Your task to perform on an android device: toggle wifi Image 0: 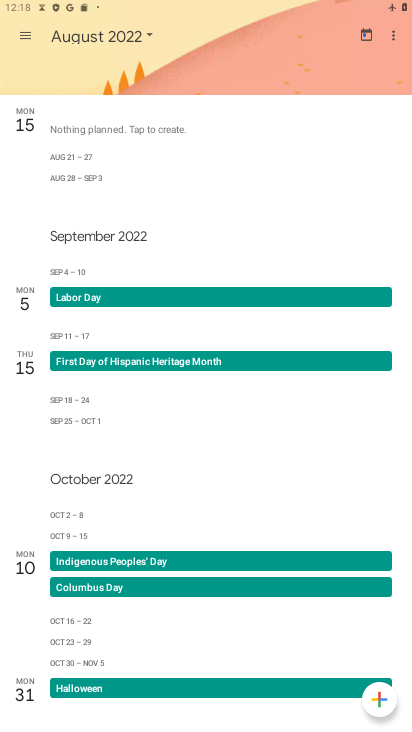
Step 0: press home button
Your task to perform on an android device: toggle wifi Image 1: 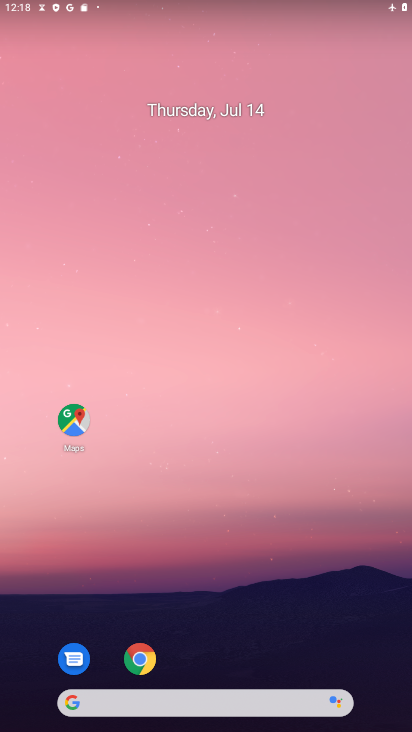
Step 1: drag from (41, 696) to (267, 39)
Your task to perform on an android device: toggle wifi Image 2: 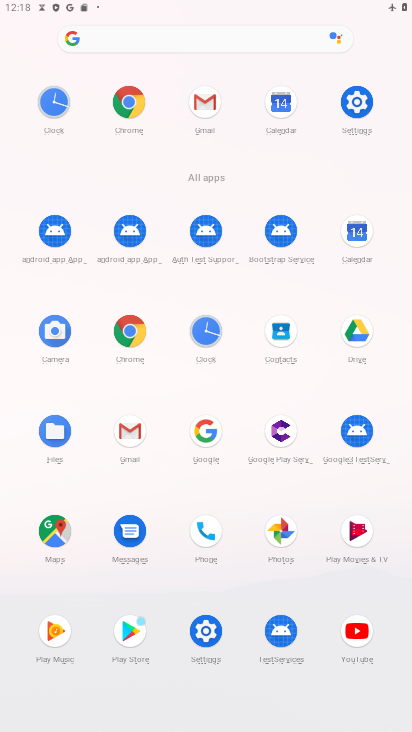
Step 2: click (199, 621)
Your task to perform on an android device: toggle wifi Image 3: 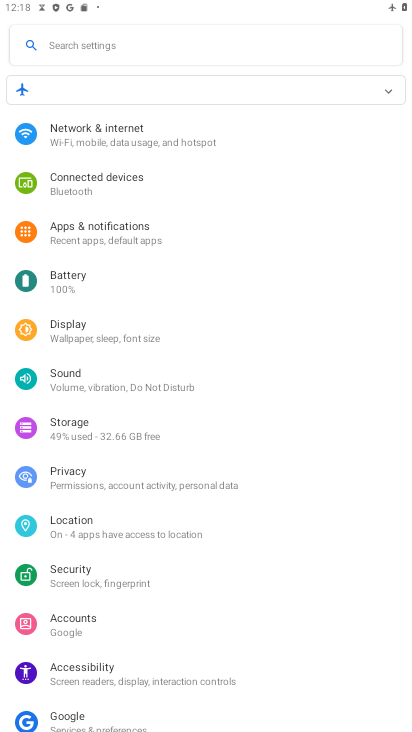
Step 3: click (161, 137)
Your task to perform on an android device: toggle wifi Image 4: 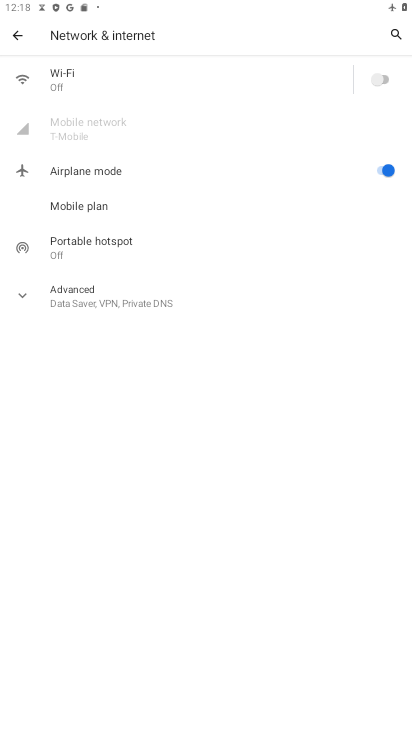
Step 4: click (374, 81)
Your task to perform on an android device: toggle wifi Image 5: 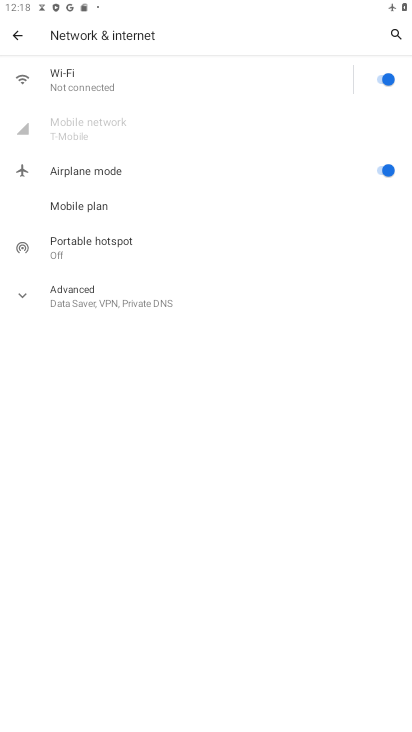
Step 5: task complete